Your task to perform on an android device: snooze an email in the gmail app Image 0: 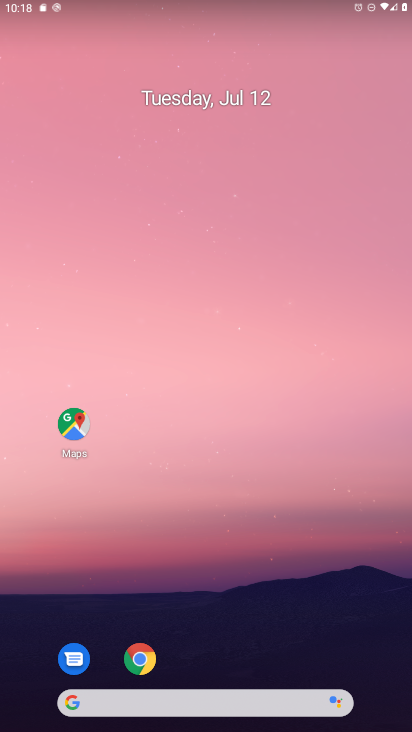
Step 0: drag from (194, 338) to (186, 117)
Your task to perform on an android device: snooze an email in the gmail app Image 1: 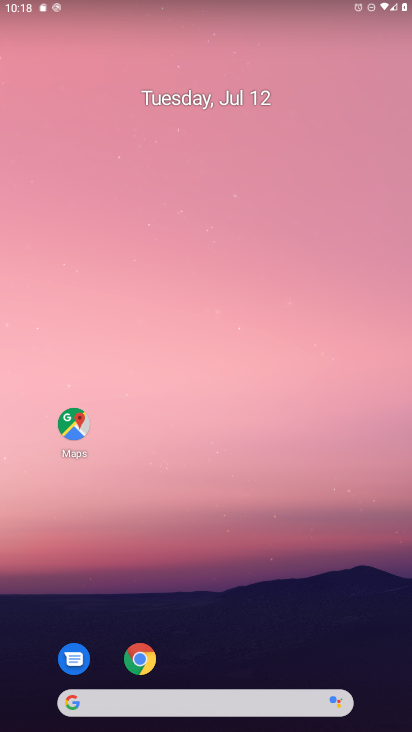
Step 1: drag from (221, 715) to (200, 148)
Your task to perform on an android device: snooze an email in the gmail app Image 2: 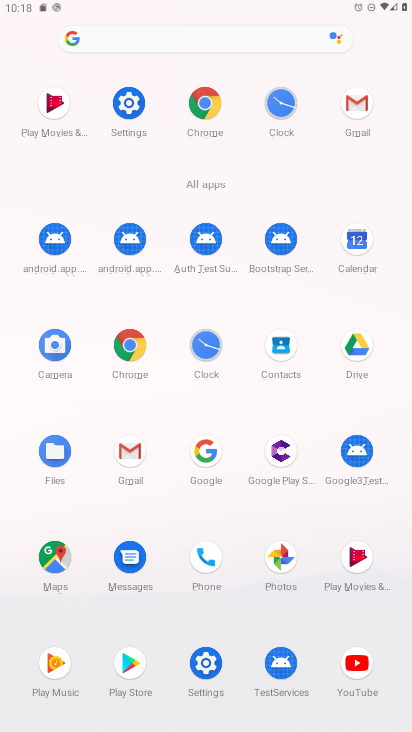
Step 2: click (124, 458)
Your task to perform on an android device: snooze an email in the gmail app Image 3: 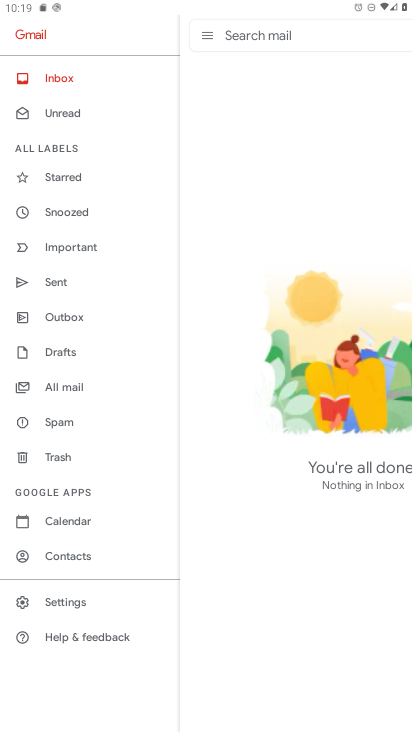
Step 3: click (67, 389)
Your task to perform on an android device: snooze an email in the gmail app Image 4: 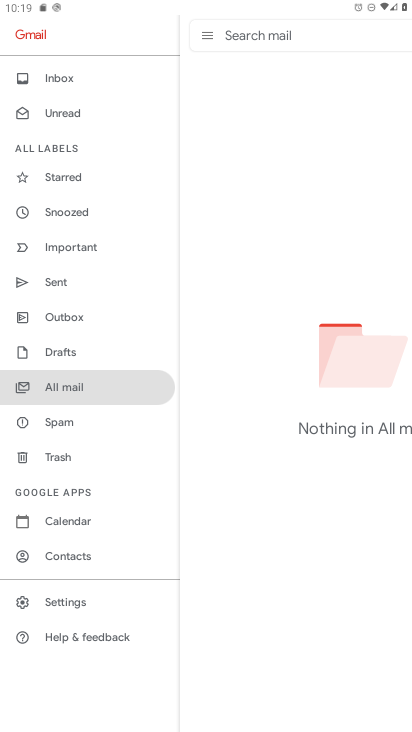
Step 4: task complete